Your task to perform on an android device: delete browsing data in the chrome app Image 0: 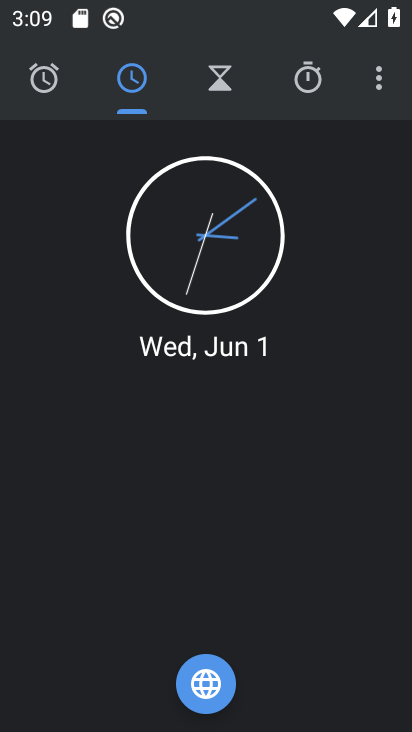
Step 0: press home button
Your task to perform on an android device: delete browsing data in the chrome app Image 1: 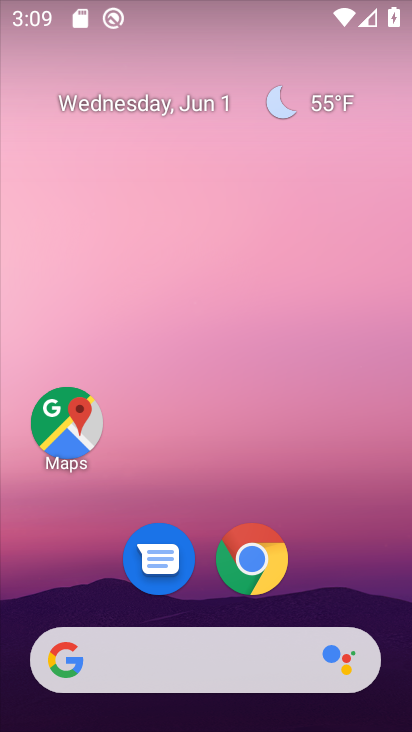
Step 1: click (254, 562)
Your task to perform on an android device: delete browsing data in the chrome app Image 2: 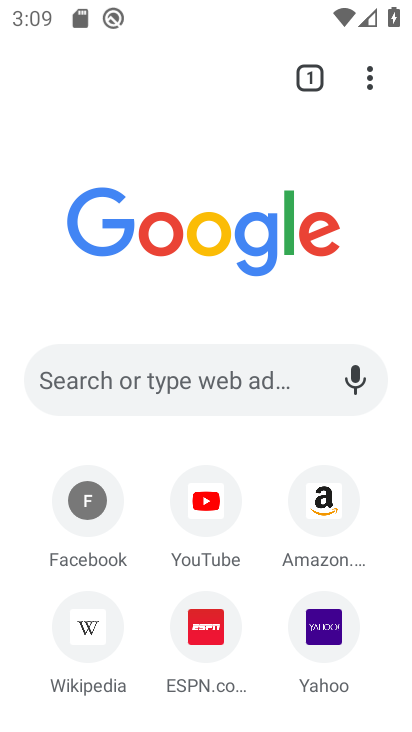
Step 2: click (372, 92)
Your task to perform on an android device: delete browsing data in the chrome app Image 3: 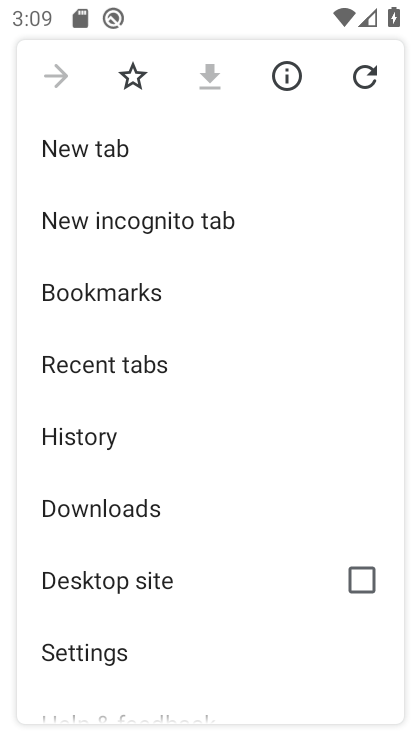
Step 3: click (93, 455)
Your task to perform on an android device: delete browsing data in the chrome app Image 4: 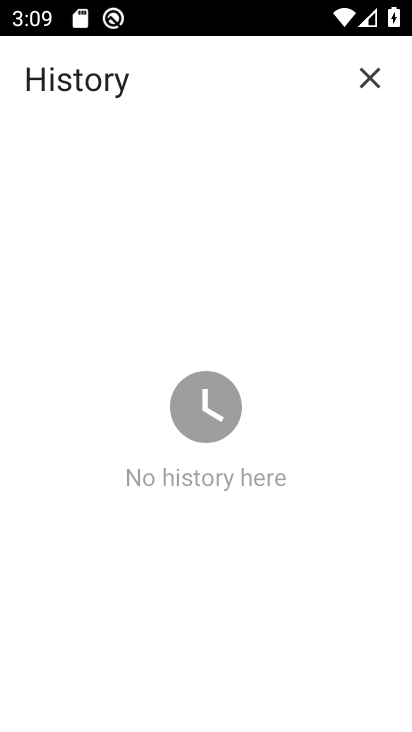
Step 4: task complete